Your task to perform on an android device: check out phone information Image 0: 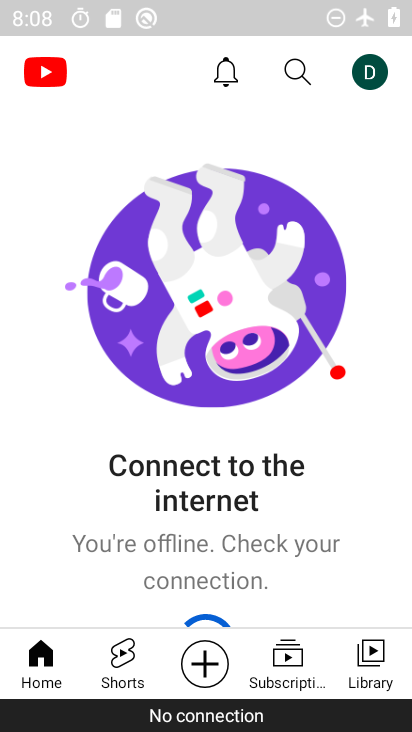
Step 0: press home button
Your task to perform on an android device: check out phone information Image 1: 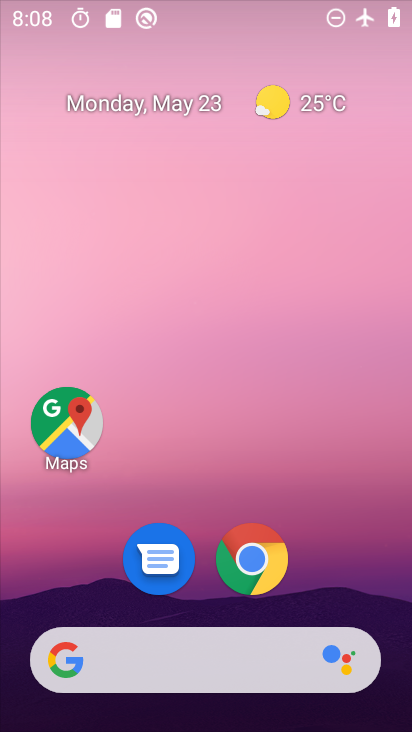
Step 1: drag from (395, 631) to (256, 63)
Your task to perform on an android device: check out phone information Image 2: 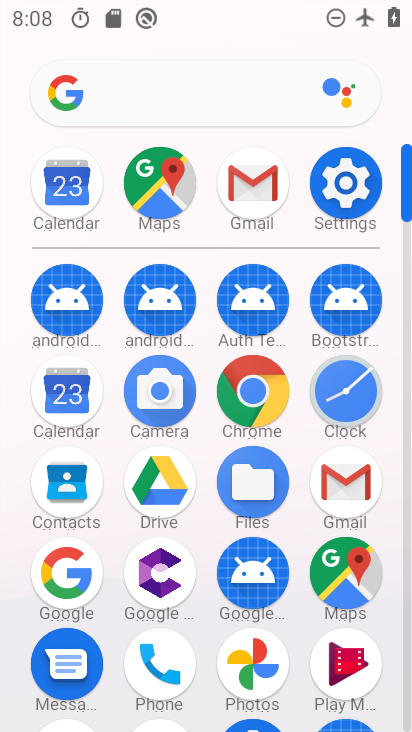
Step 2: click (333, 191)
Your task to perform on an android device: check out phone information Image 3: 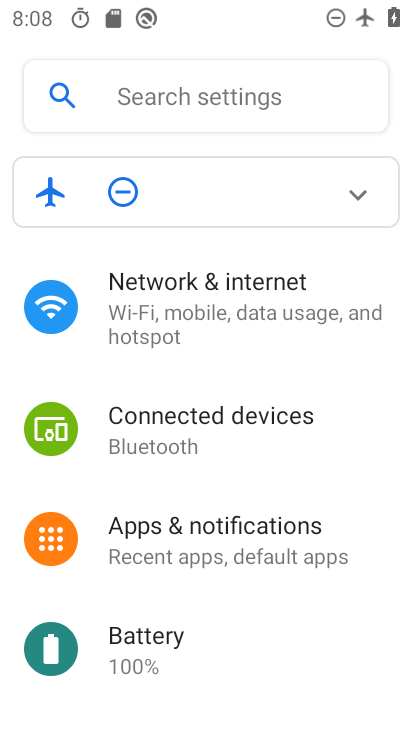
Step 3: drag from (182, 635) to (160, 125)
Your task to perform on an android device: check out phone information Image 4: 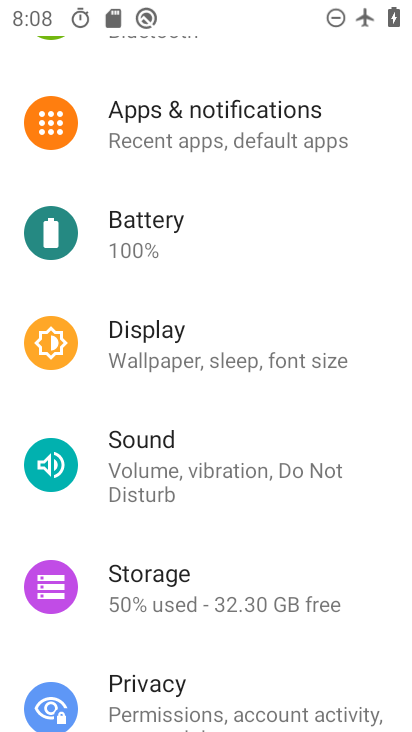
Step 4: drag from (177, 633) to (195, 133)
Your task to perform on an android device: check out phone information Image 5: 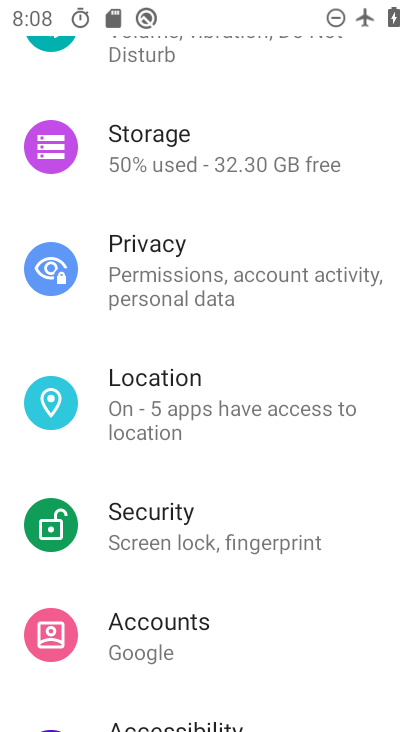
Step 5: drag from (195, 623) to (225, 188)
Your task to perform on an android device: check out phone information Image 6: 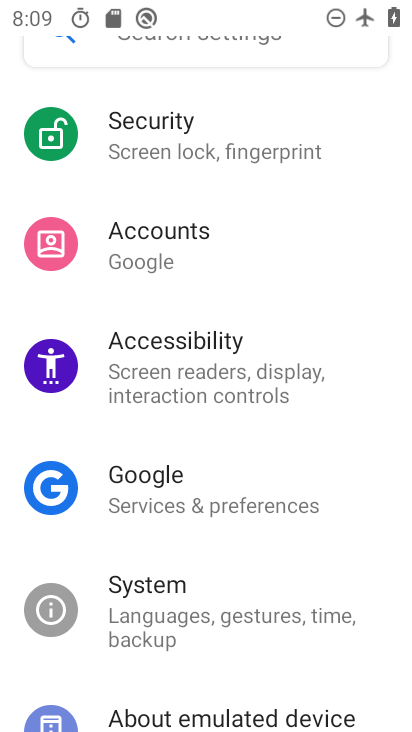
Step 6: drag from (178, 669) to (172, 449)
Your task to perform on an android device: check out phone information Image 7: 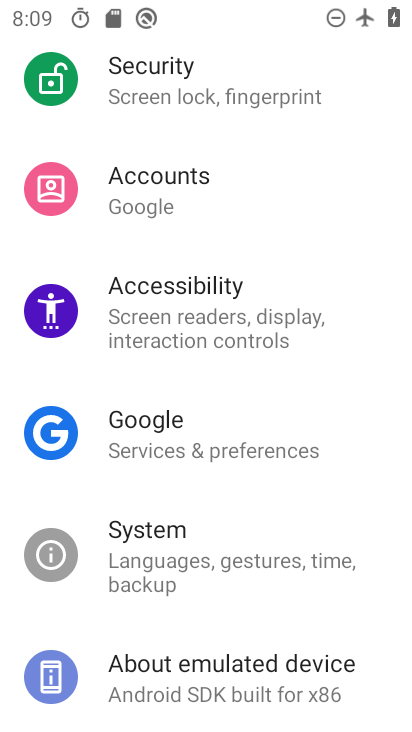
Step 7: click (205, 700)
Your task to perform on an android device: check out phone information Image 8: 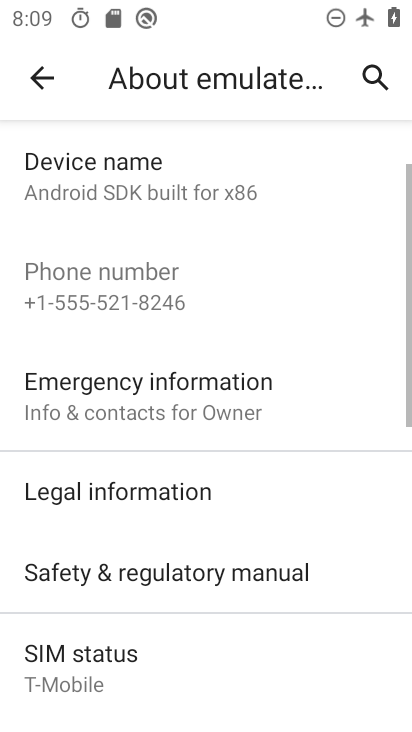
Step 8: task complete